Your task to perform on an android device: turn off location history Image 0: 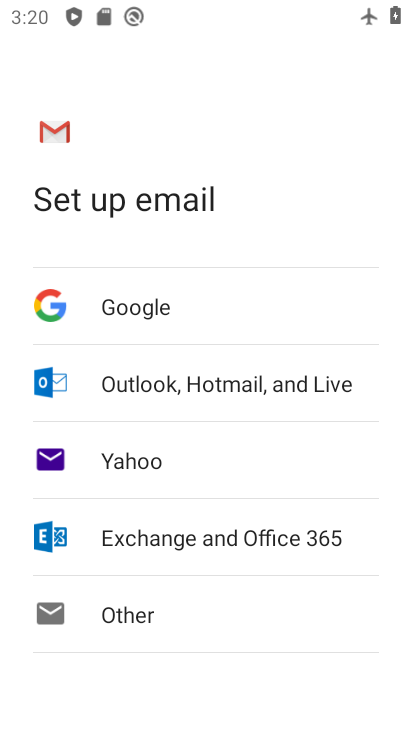
Step 0: drag from (222, 601) to (264, 240)
Your task to perform on an android device: turn off location history Image 1: 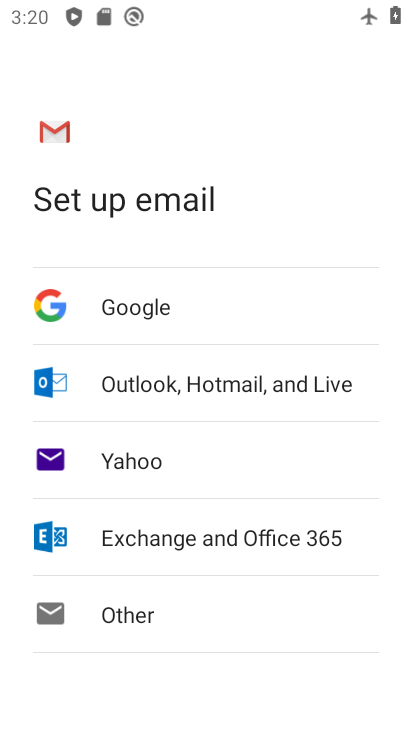
Step 1: press home button
Your task to perform on an android device: turn off location history Image 2: 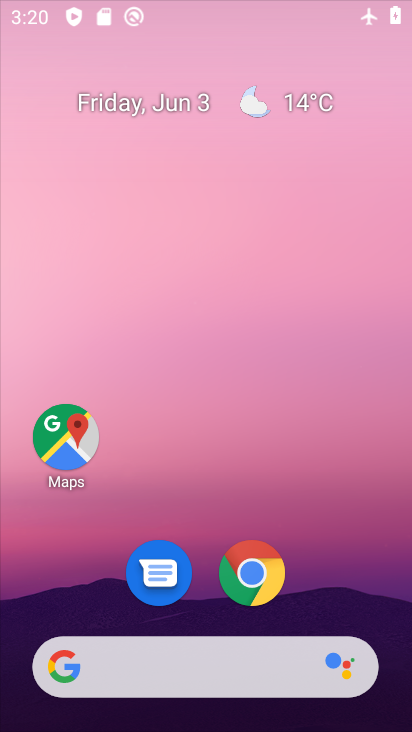
Step 2: drag from (218, 488) to (273, 182)
Your task to perform on an android device: turn off location history Image 3: 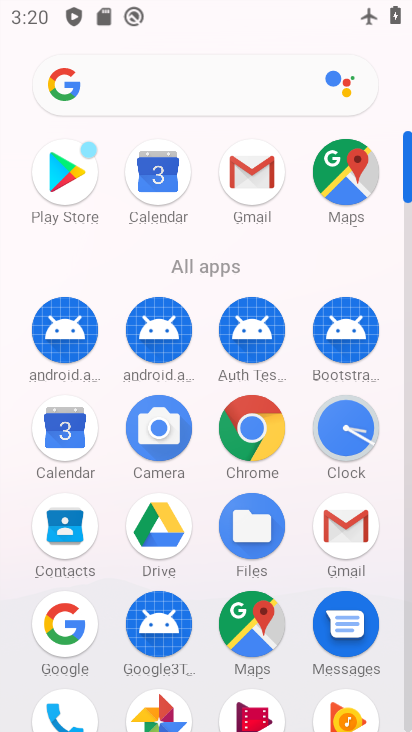
Step 3: drag from (190, 464) to (254, 118)
Your task to perform on an android device: turn off location history Image 4: 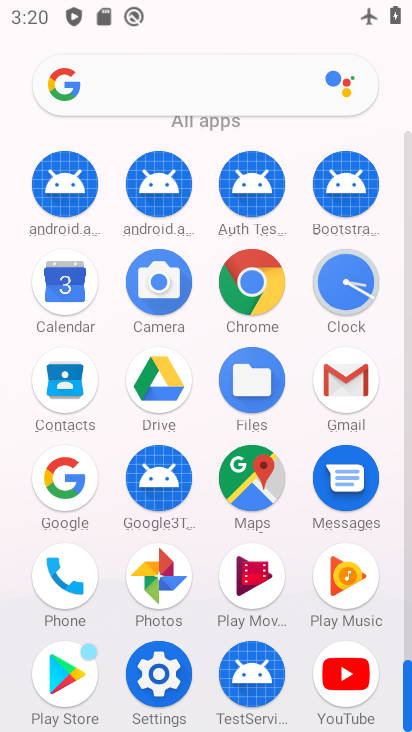
Step 4: click (153, 693)
Your task to perform on an android device: turn off location history Image 5: 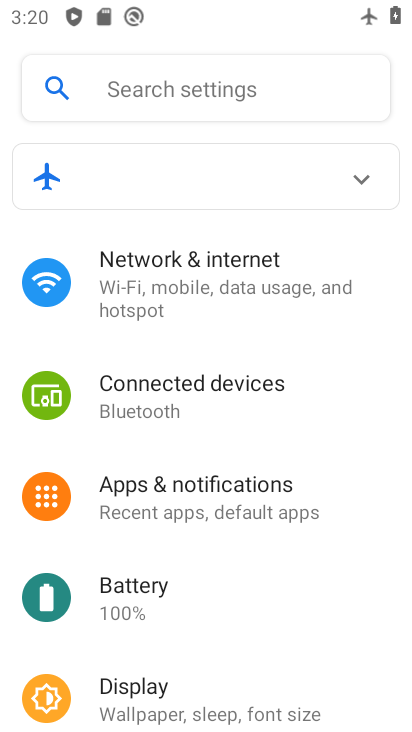
Step 5: drag from (215, 573) to (253, 259)
Your task to perform on an android device: turn off location history Image 6: 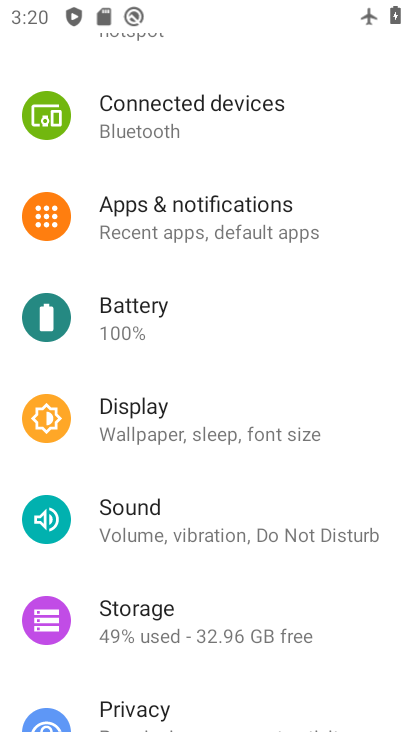
Step 6: drag from (182, 570) to (240, 346)
Your task to perform on an android device: turn off location history Image 7: 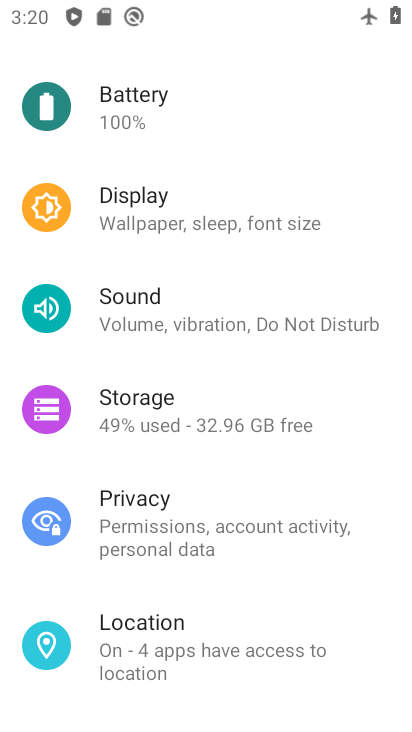
Step 7: click (156, 639)
Your task to perform on an android device: turn off location history Image 8: 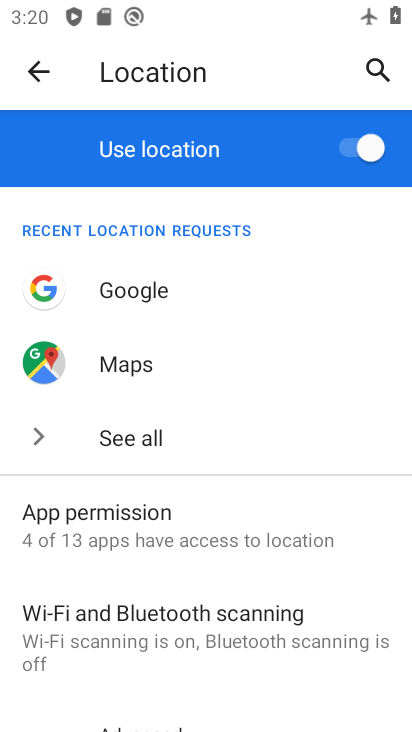
Step 8: drag from (153, 605) to (217, 366)
Your task to perform on an android device: turn off location history Image 9: 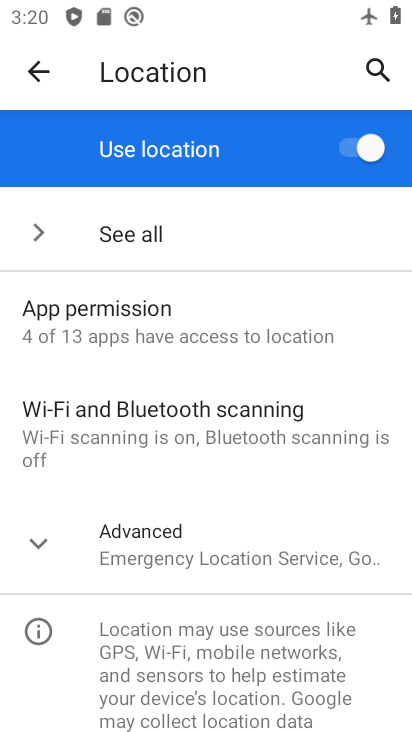
Step 9: click (158, 568)
Your task to perform on an android device: turn off location history Image 10: 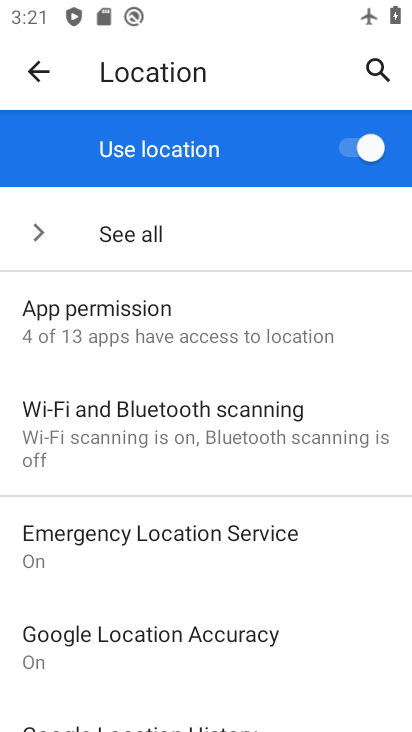
Step 10: drag from (213, 432) to (259, 291)
Your task to perform on an android device: turn off location history Image 11: 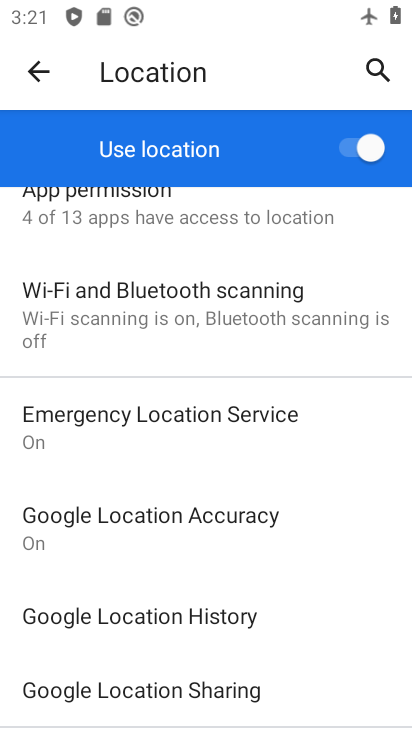
Step 11: click (186, 608)
Your task to perform on an android device: turn off location history Image 12: 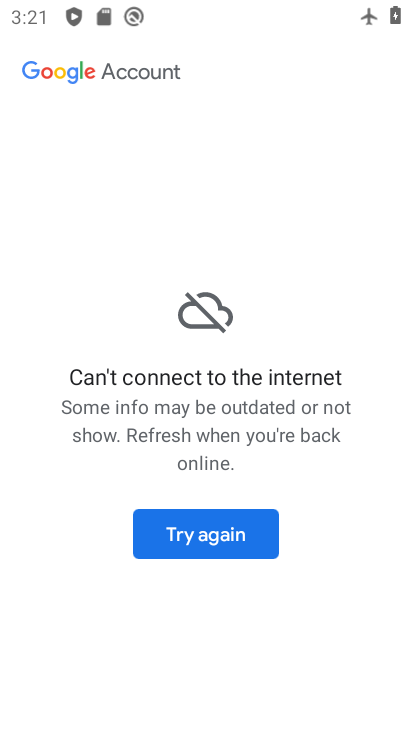
Step 12: task complete